Your task to perform on an android device: Open settings Image 0: 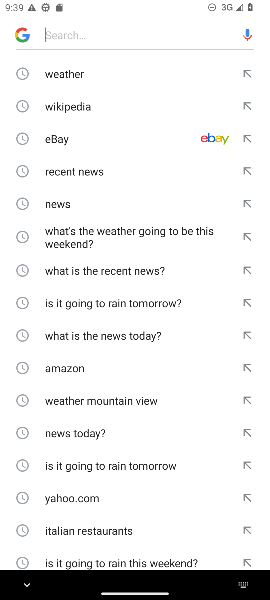
Step 0: press home button
Your task to perform on an android device: Open settings Image 1: 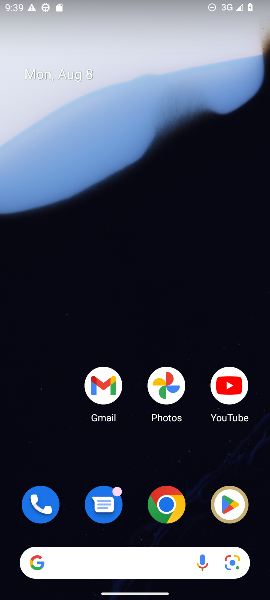
Step 1: drag from (124, 388) to (105, 0)
Your task to perform on an android device: Open settings Image 2: 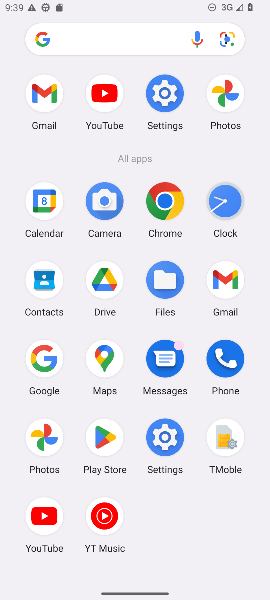
Step 2: click (178, 439)
Your task to perform on an android device: Open settings Image 3: 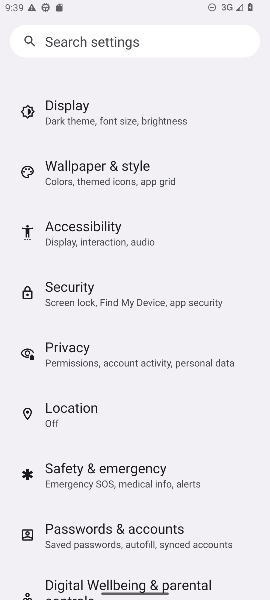
Step 3: task complete